Your task to perform on an android device: Go to Maps Image 0: 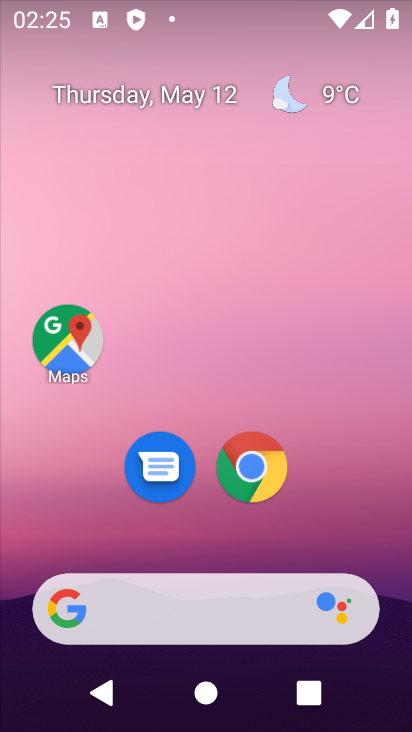
Step 0: drag from (321, 428) to (318, 175)
Your task to perform on an android device: Go to Maps Image 1: 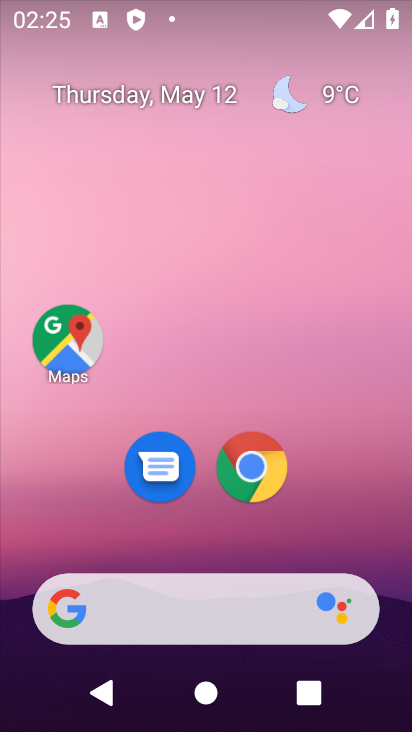
Step 1: drag from (323, 541) to (344, 187)
Your task to perform on an android device: Go to Maps Image 2: 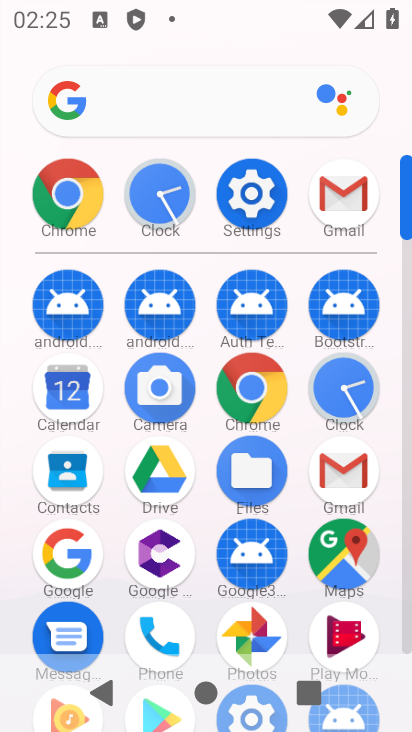
Step 2: click (322, 551)
Your task to perform on an android device: Go to Maps Image 3: 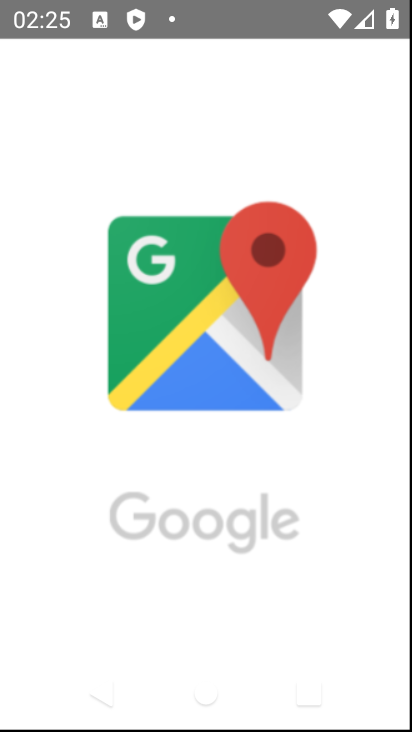
Step 3: click (174, 421)
Your task to perform on an android device: Go to Maps Image 4: 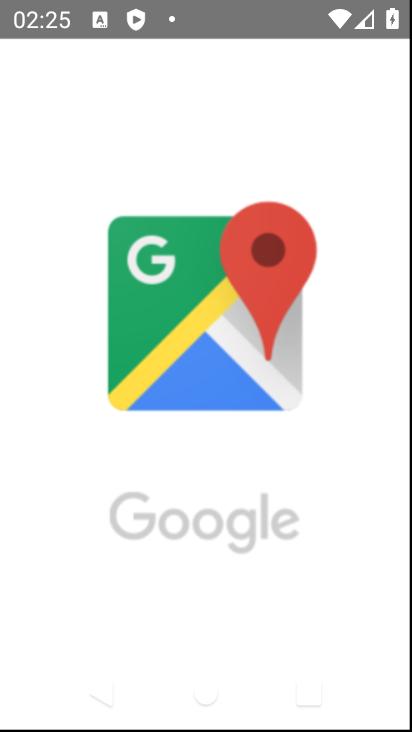
Step 4: task complete